Your task to perform on an android device: toggle notifications settings in the gmail app Image 0: 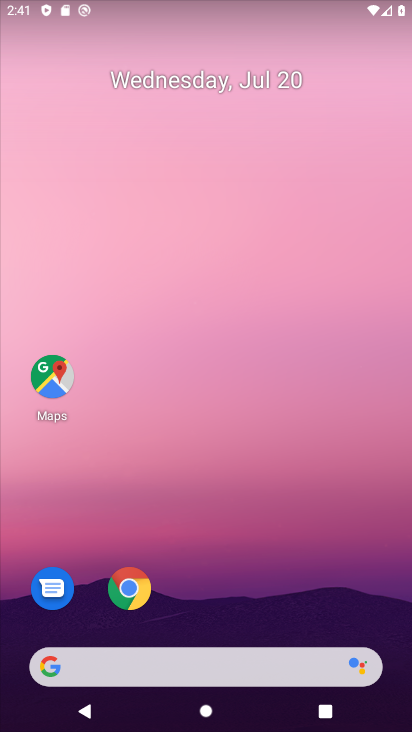
Step 0: drag from (229, 619) to (280, 76)
Your task to perform on an android device: toggle notifications settings in the gmail app Image 1: 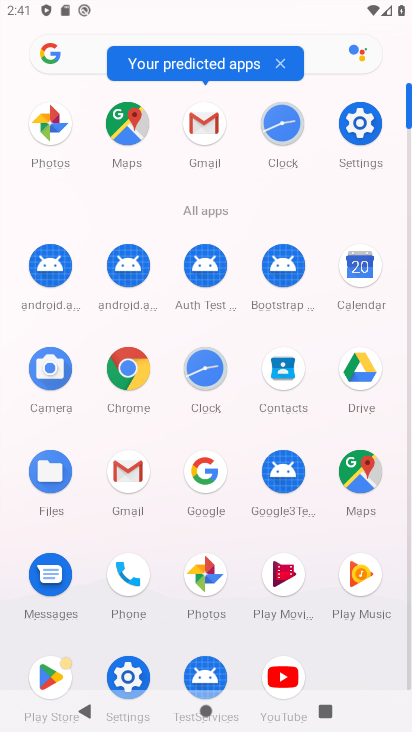
Step 1: click (130, 473)
Your task to perform on an android device: toggle notifications settings in the gmail app Image 2: 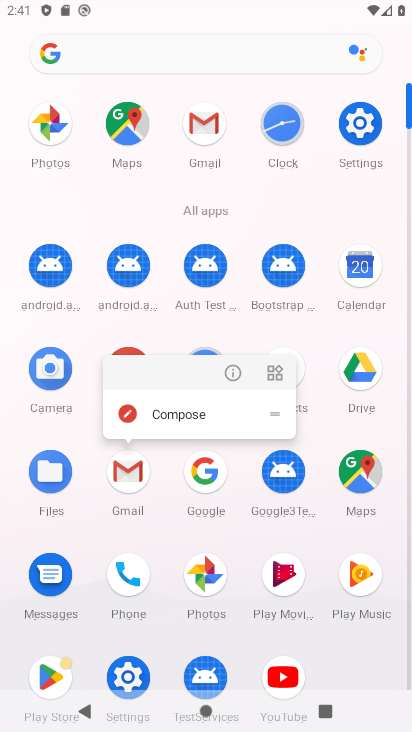
Step 2: click (130, 473)
Your task to perform on an android device: toggle notifications settings in the gmail app Image 3: 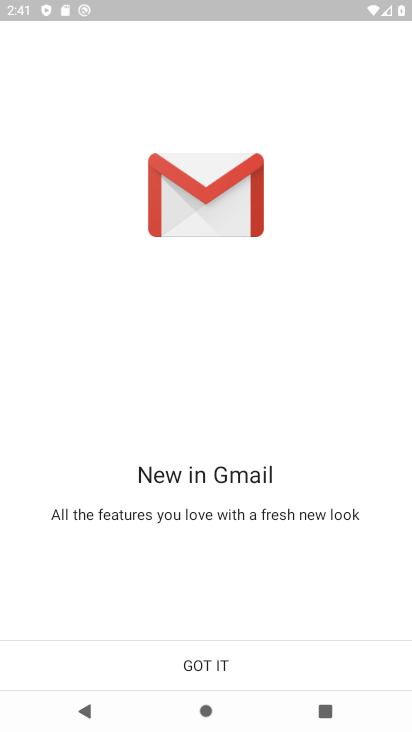
Step 3: click (188, 679)
Your task to perform on an android device: toggle notifications settings in the gmail app Image 4: 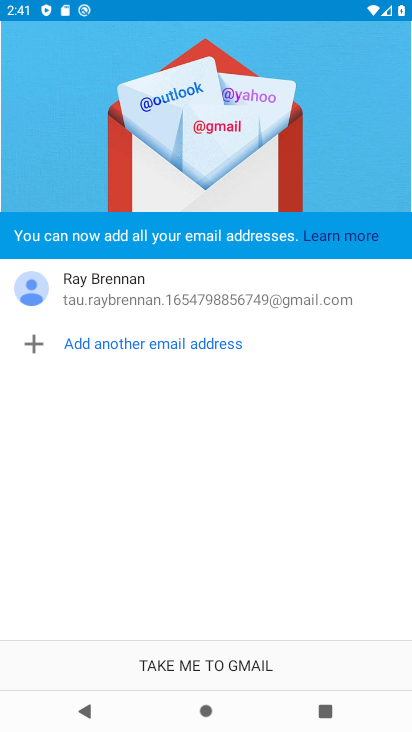
Step 4: click (199, 674)
Your task to perform on an android device: toggle notifications settings in the gmail app Image 5: 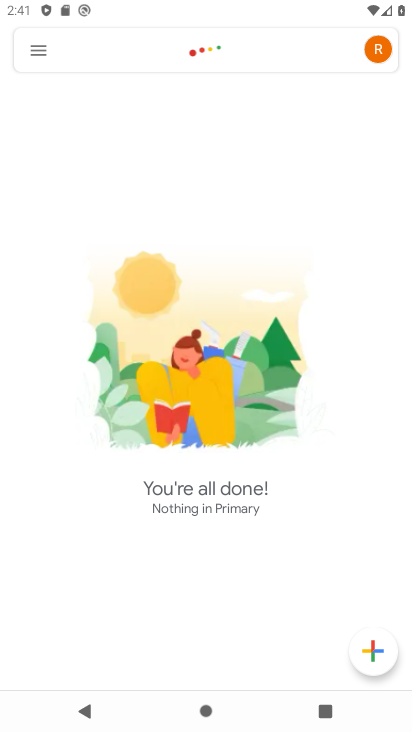
Step 5: click (50, 61)
Your task to perform on an android device: toggle notifications settings in the gmail app Image 6: 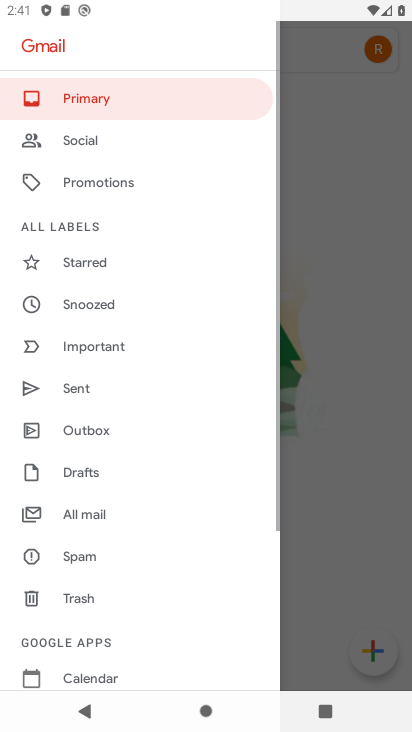
Step 6: drag from (89, 579) to (164, 220)
Your task to perform on an android device: toggle notifications settings in the gmail app Image 7: 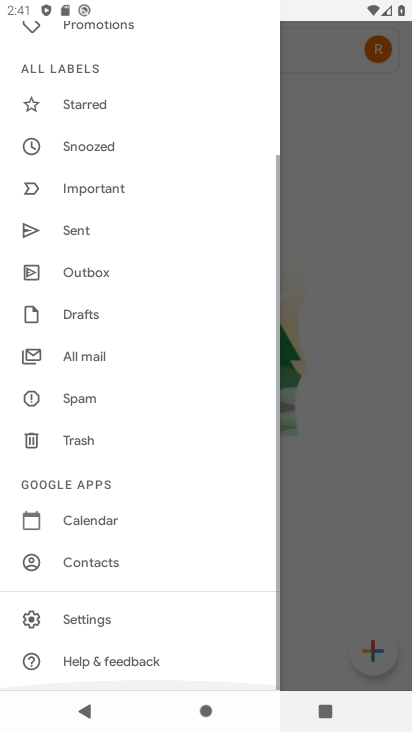
Step 7: click (145, 618)
Your task to perform on an android device: toggle notifications settings in the gmail app Image 8: 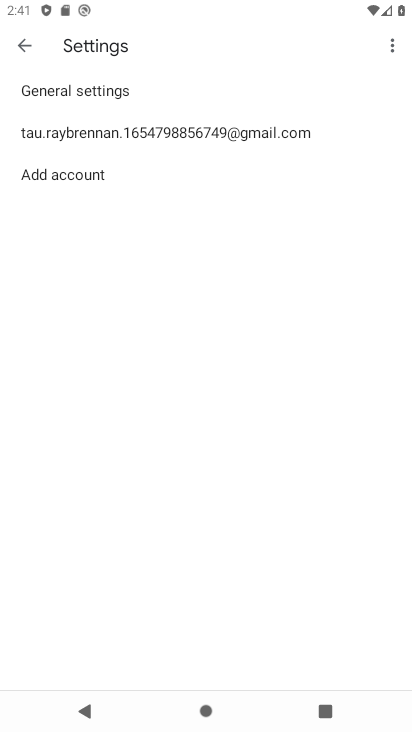
Step 8: click (178, 142)
Your task to perform on an android device: toggle notifications settings in the gmail app Image 9: 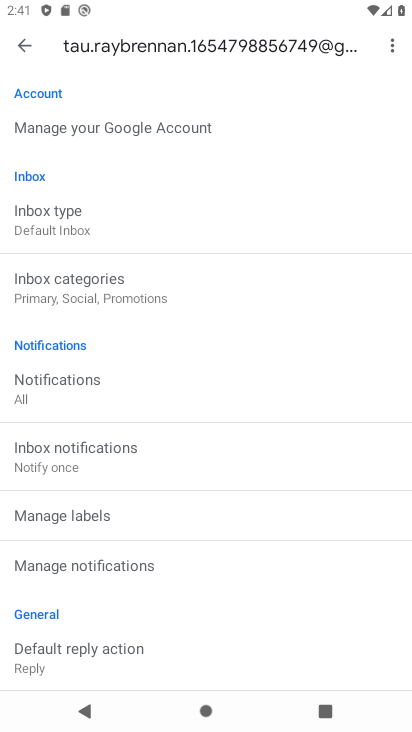
Step 9: click (129, 564)
Your task to perform on an android device: toggle notifications settings in the gmail app Image 10: 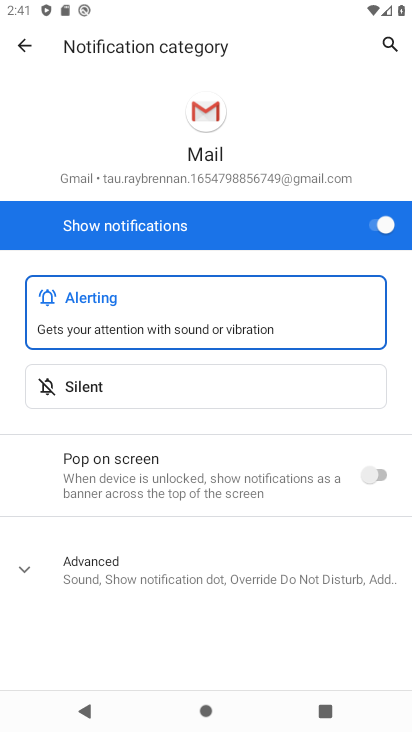
Step 10: click (367, 221)
Your task to perform on an android device: toggle notifications settings in the gmail app Image 11: 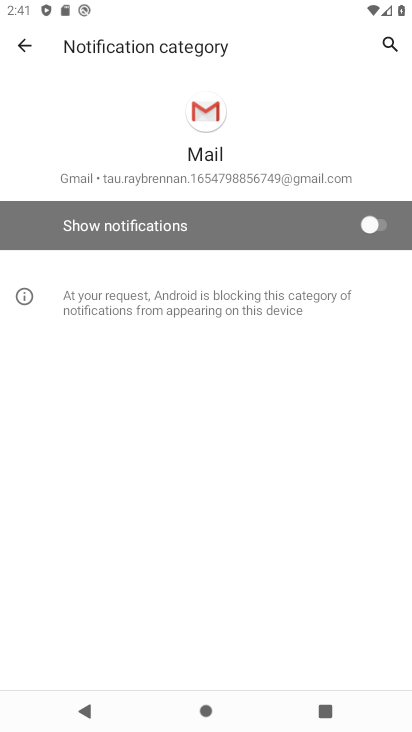
Step 11: task complete